Your task to perform on an android device: Go to ESPN.com Image 0: 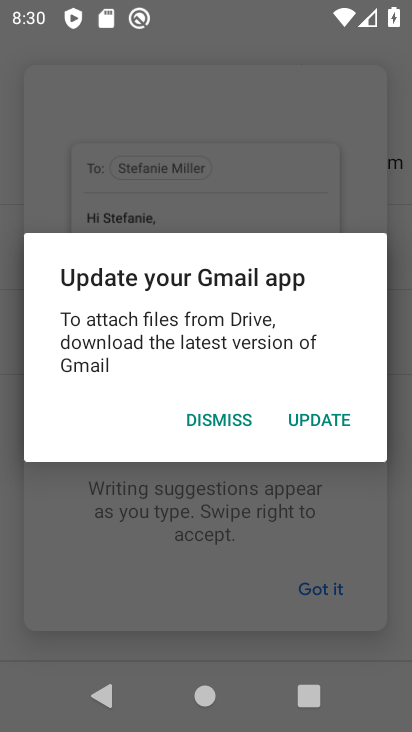
Step 0: press home button
Your task to perform on an android device: Go to ESPN.com Image 1: 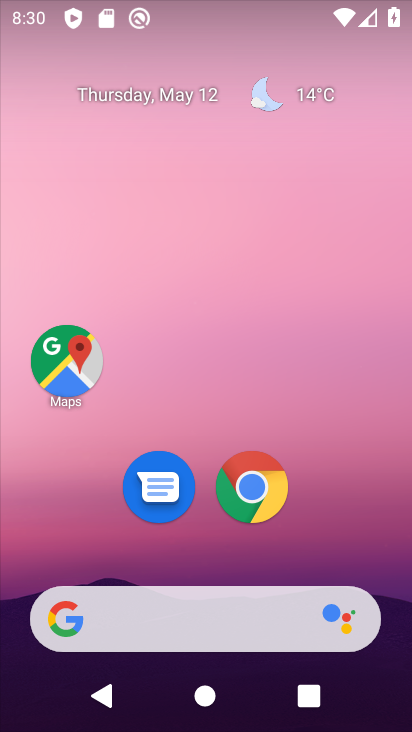
Step 1: click (240, 490)
Your task to perform on an android device: Go to ESPN.com Image 2: 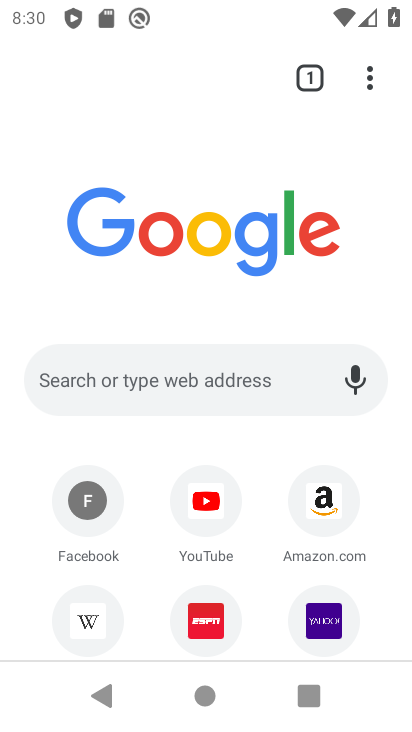
Step 2: drag from (41, 506) to (235, 216)
Your task to perform on an android device: Go to ESPN.com Image 3: 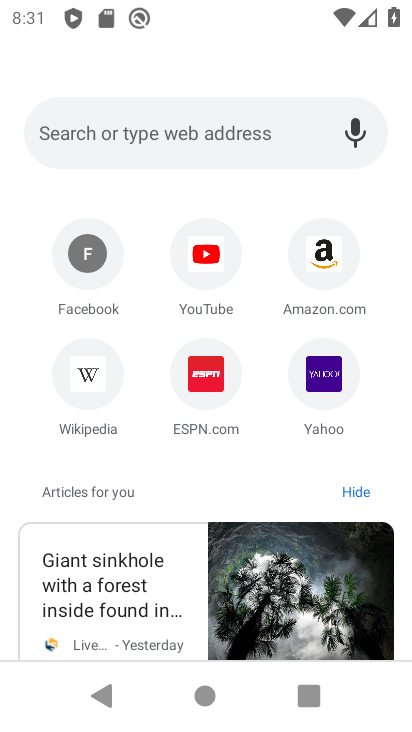
Step 3: click (190, 394)
Your task to perform on an android device: Go to ESPN.com Image 4: 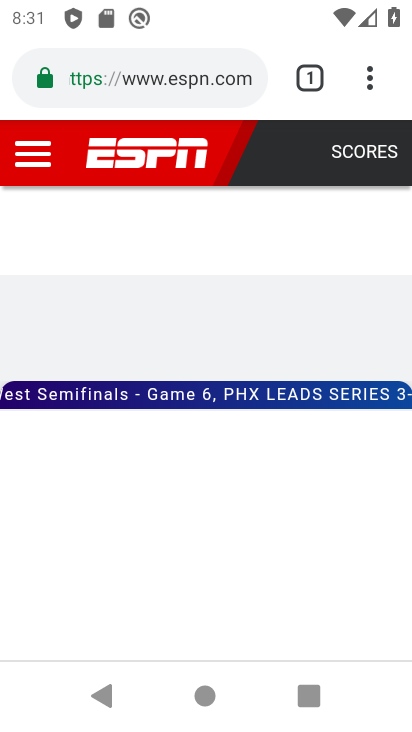
Step 4: task complete